Your task to perform on an android device: Play the last video I watched on Youtube Image 0: 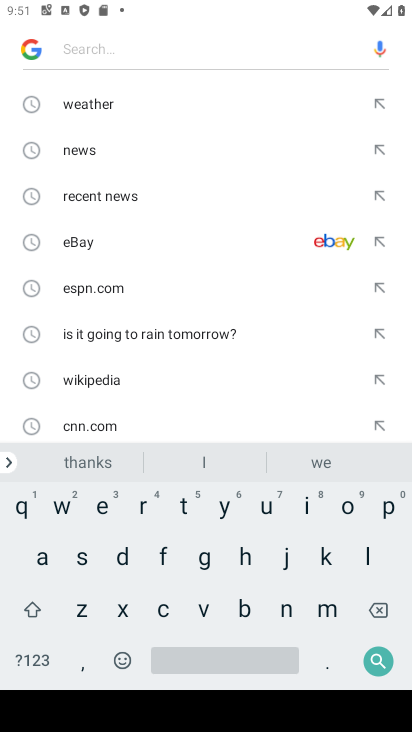
Step 0: press home button
Your task to perform on an android device: Play the last video I watched on Youtube Image 1: 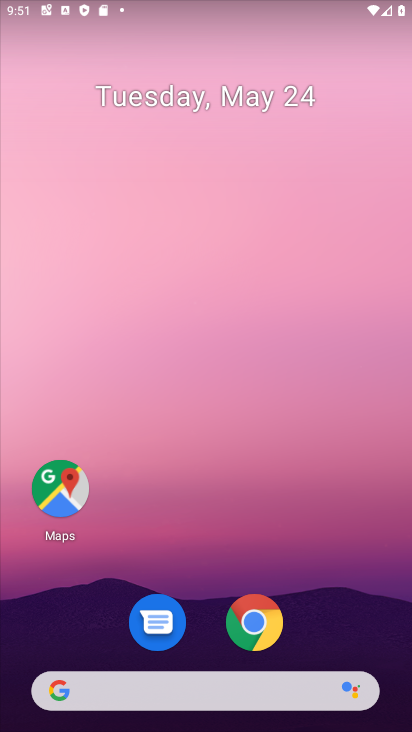
Step 1: drag from (232, 702) to (408, 119)
Your task to perform on an android device: Play the last video I watched on Youtube Image 2: 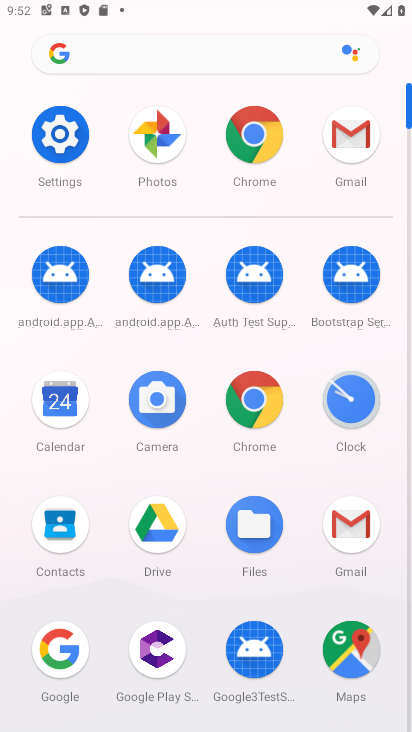
Step 2: drag from (206, 462) to (238, 241)
Your task to perform on an android device: Play the last video I watched on Youtube Image 3: 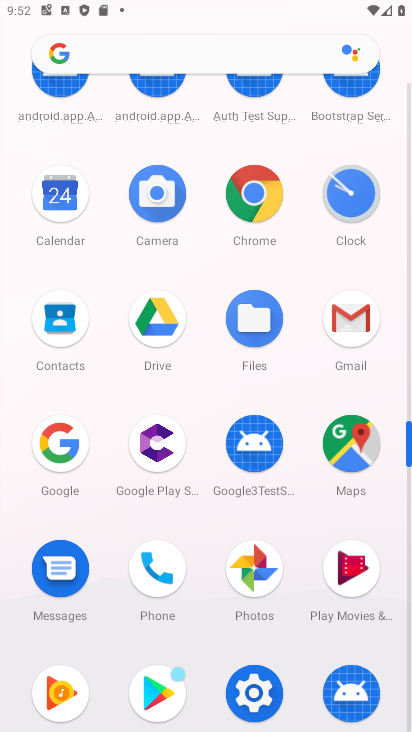
Step 3: drag from (216, 624) to (263, 460)
Your task to perform on an android device: Play the last video I watched on Youtube Image 4: 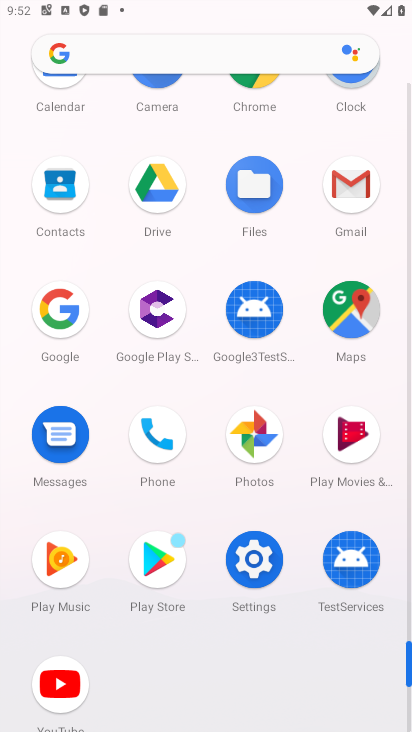
Step 4: click (66, 686)
Your task to perform on an android device: Play the last video I watched on Youtube Image 5: 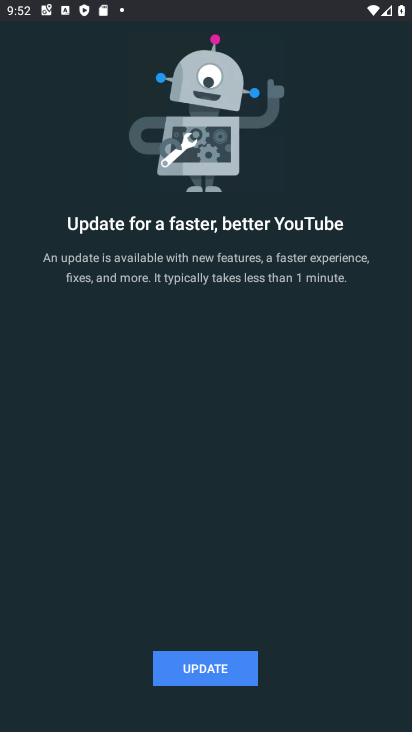
Step 5: click (206, 680)
Your task to perform on an android device: Play the last video I watched on Youtube Image 6: 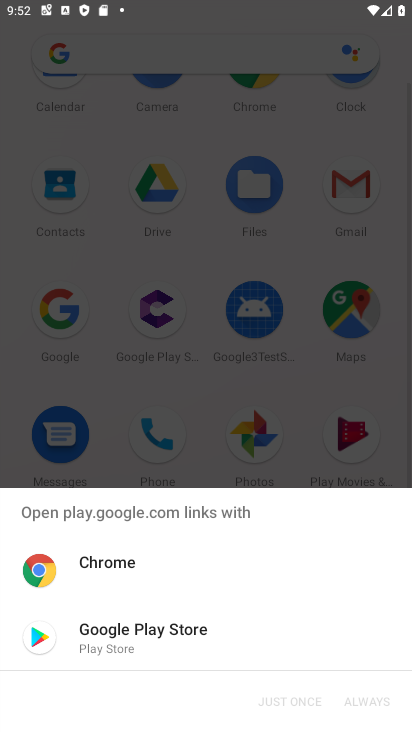
Step 6: click (173, 620)
Your task to perform on an android device: Play the last video I watched on Youtube Image 7: 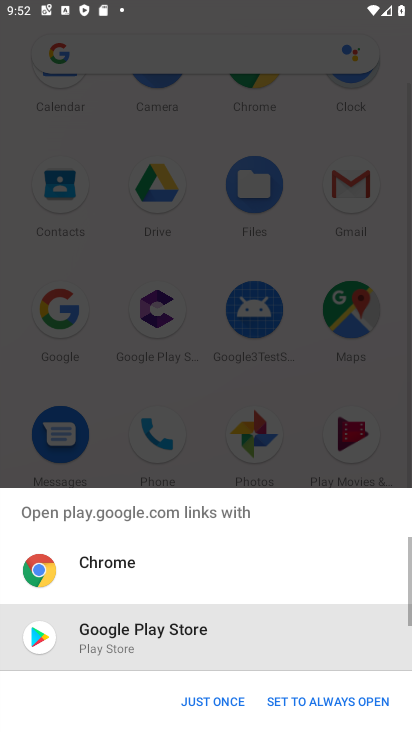
Step 7: click (191, 699)
Your task to perform on an android device: Play the last video I watched on Youtube Image 8: 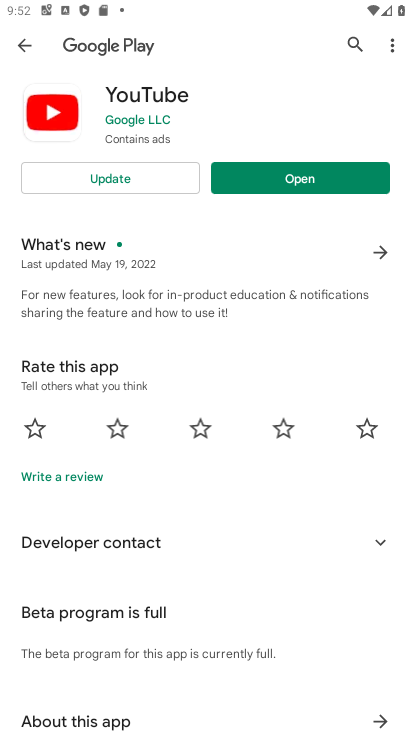
Step 8: click (148, 184)
Your task to perform on an android device: Play the last video I watched on Youtube Image 9: 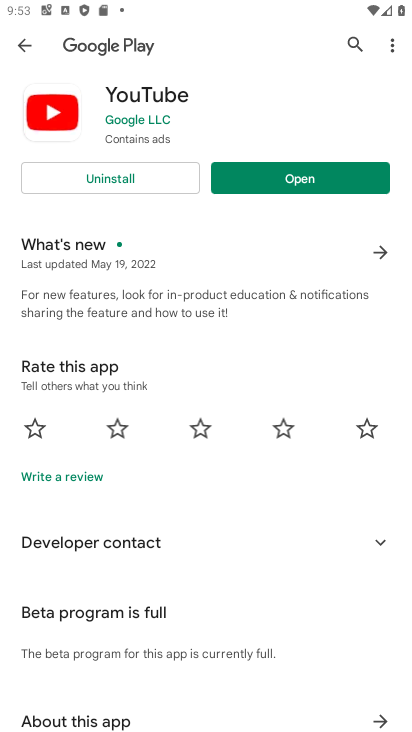
Step 9: click (256, 174)
Your task to perform on an android device: Play the last video I watched on Youtube Image 10: 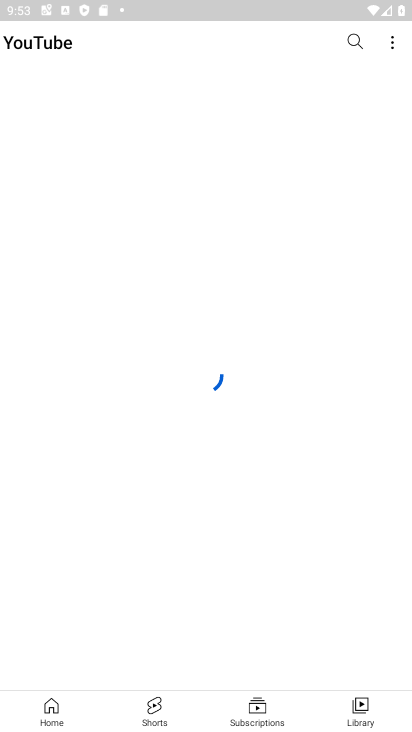
Step 10: click (370, 707)
Your task to perform on an android device: Play the last video I watched on Youtube Image 11: 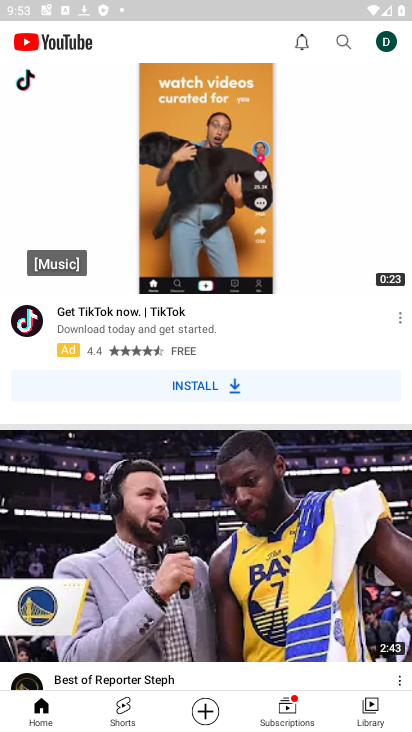
Step 11: click (363, 709)
Your task to perform on an android device: Play the last video I watched on Youtube Image 12: 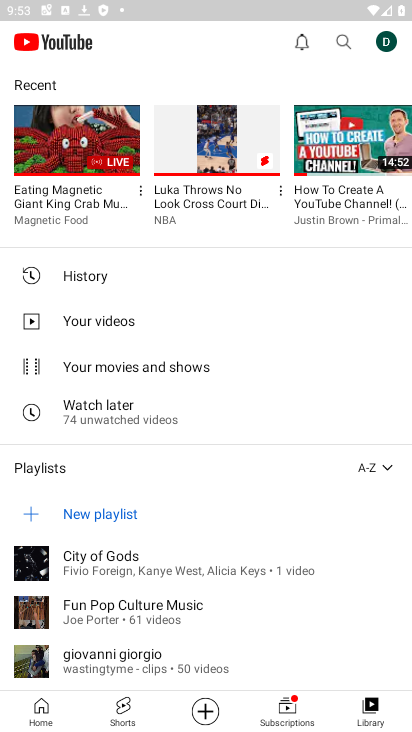
Step 12: click (84, 151)
Your task to perform on an android device: Play the last video I watched on Youtube Image 13: 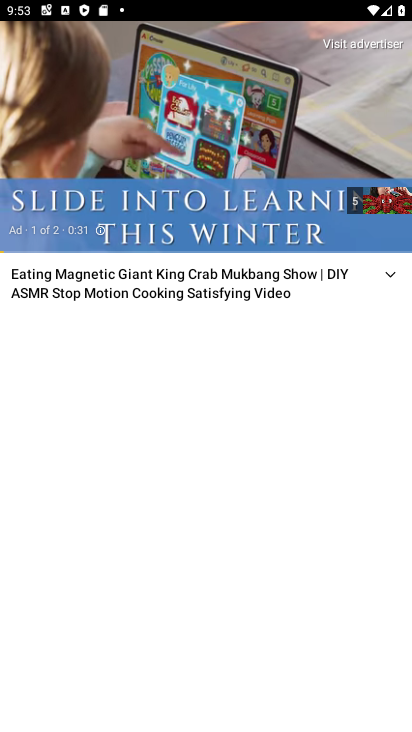
Step 13: task complete